Your task to perform on an android device: Set the phone to "Do not disturb". Image 0: 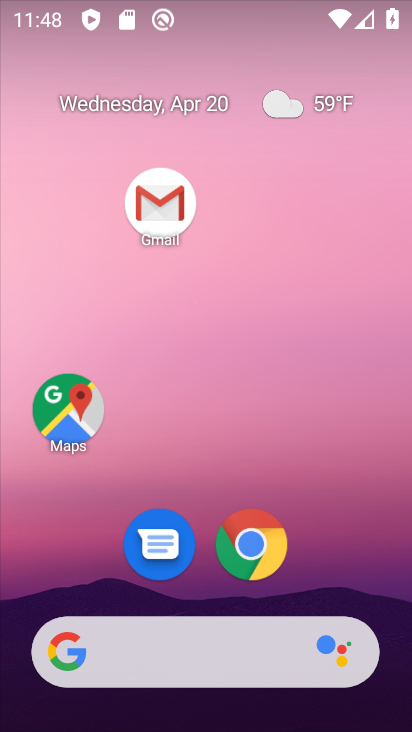
Step 0: drag from (308, 593) to (366, 93)
Your task to perform on an android device: Set the phone to "Do not disturb". Image 1: 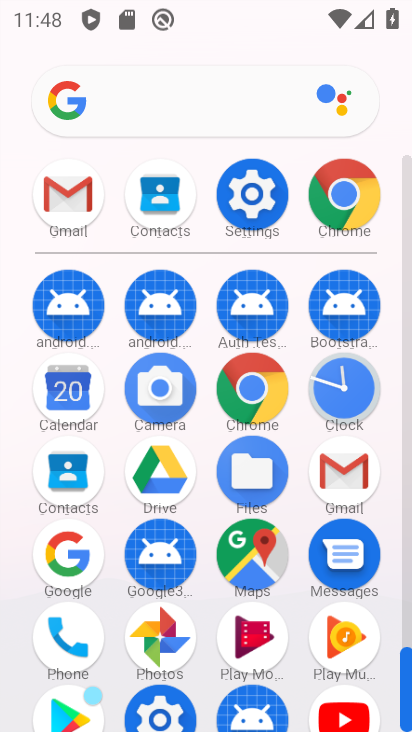
Step 1: click (266, 180)
Your task to perform on an android device: Set the phone to "Do not disturb". Image 2: 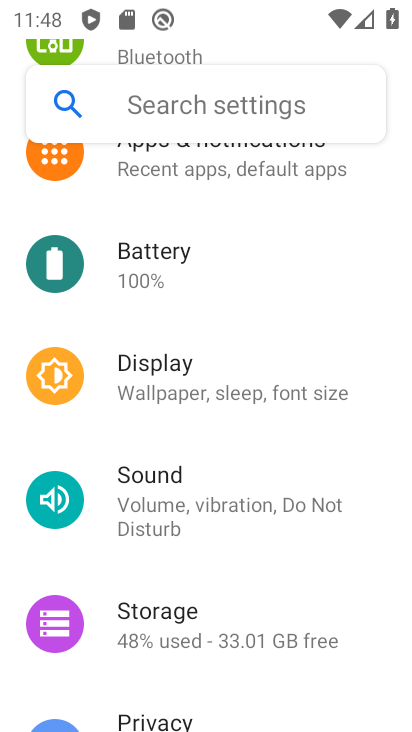
Step 2: click (207, 496)
Your task to perform on an android device: Set the phone to "Do not disturb". Image 3: 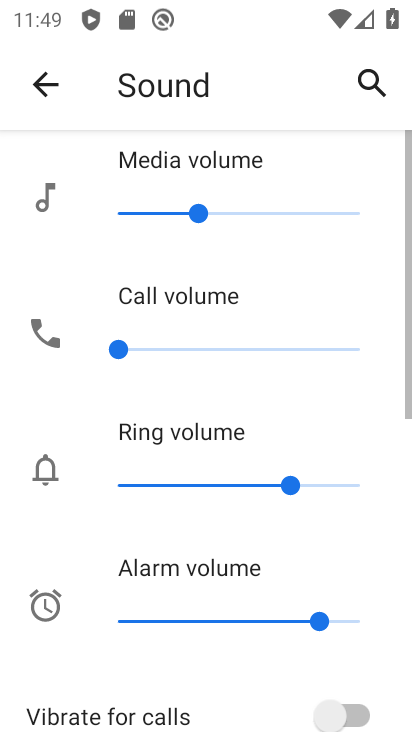
Step 3: drag from (219, 461) to (278, 113)
Your task to perform on an android device: Set the phone to "Do not disturb". Image 4: 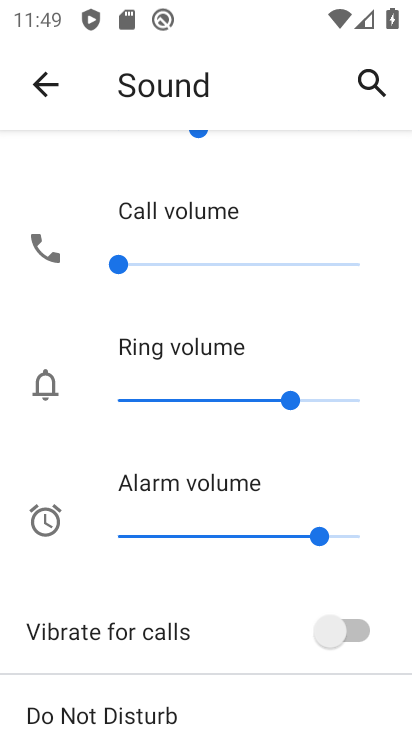
Step 4: drag from (141, 604) to (221, 192)
Your task to perform on an android device: Set the phone to "Do not disturb". Image 5: 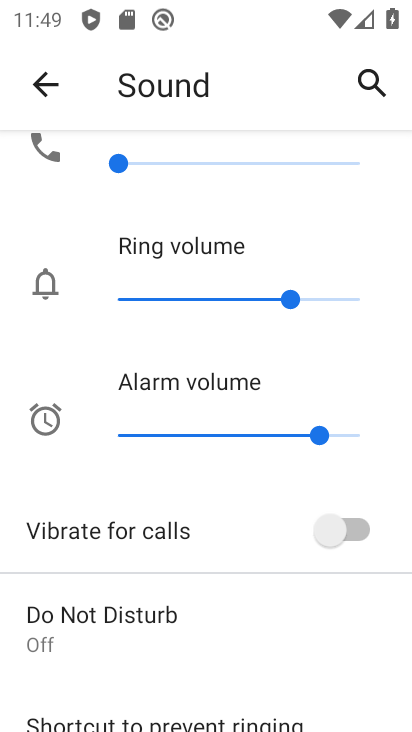
Step 5: drag from (185, 630) to (298, 199)
Your task to perform on an android device: Set the phone to "Do not disturb". Image 6: 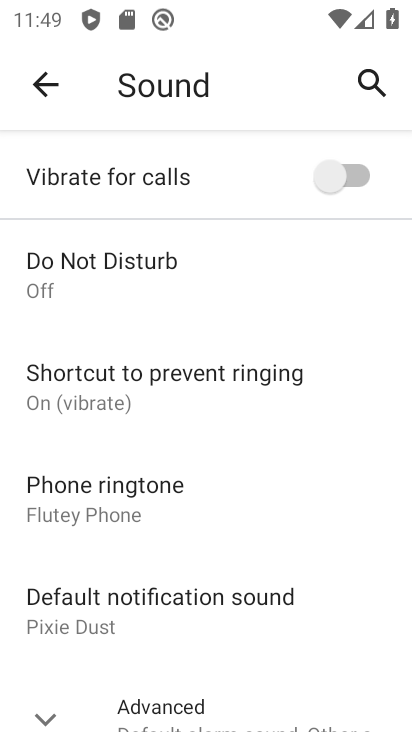
Step 6: drag from (218, 550) to (335, 110)
Your task to perform on an android device: Set the phone to "Do not disturb". Image 7: 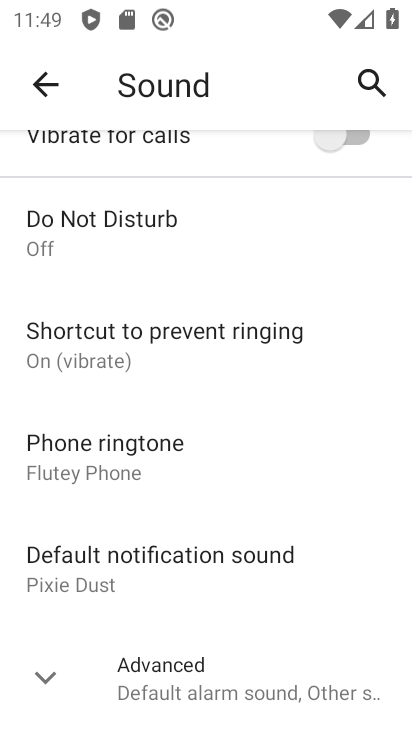
Step 7: click (118, 729)
Your task to perform on an android device: Set the phone to "Do not disturb". Image 8: 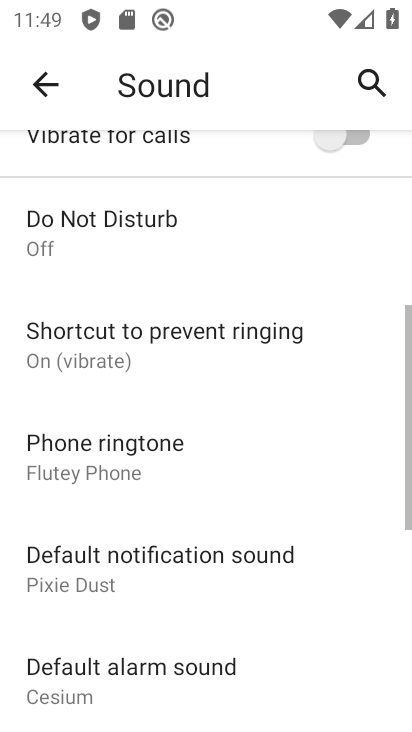
Step 8: drag from (174, 674) to (308, 158)
Your task to perform on an android device: Set the phone to "Do not disturb". Image 9: 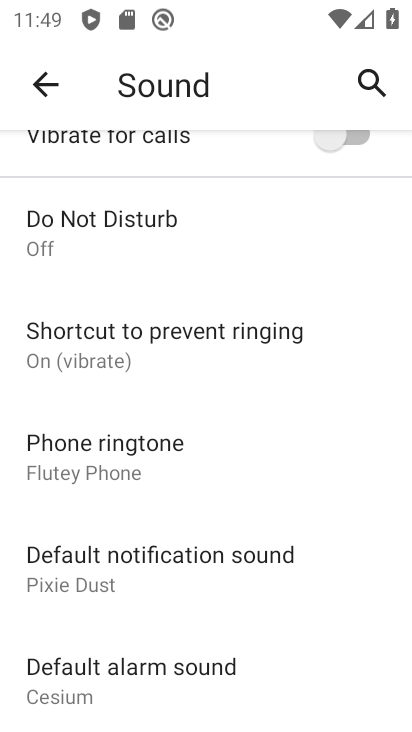
Step 9: drag from (333, 595) to (349, 290)
Your task to perform on an android device: Set the phone to "Do not disturb". Image 10: 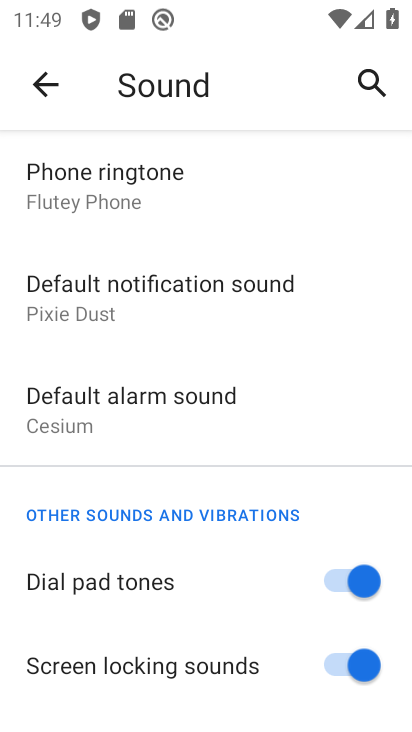
Step 10: drag from (227, 217) to (145, 615)
Your task to perform on an android device: Set the phone to "Do not disturb". Image 11: 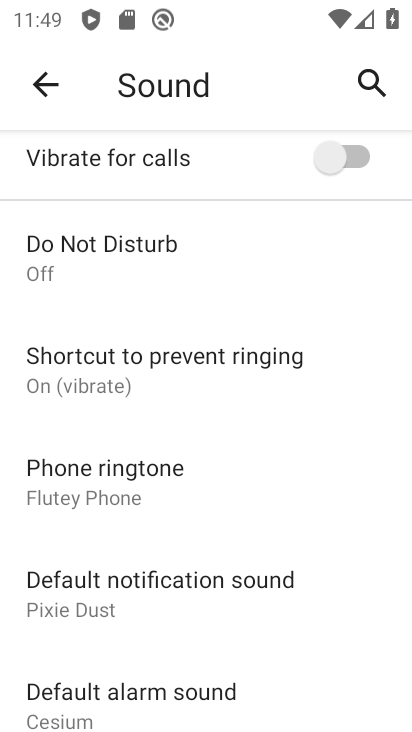
Step 11: click (100, 267)
Your task to perform on an android device: Set the phone to "Do not disturb". Image 12: 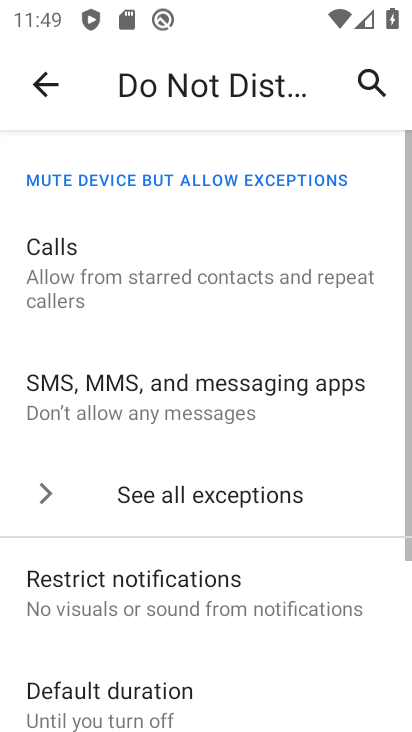
Step 12: drag from (117, 651) to (241, 164)
Your task to perform on an android device: Set the phone to "Do not disturb". Image 13: 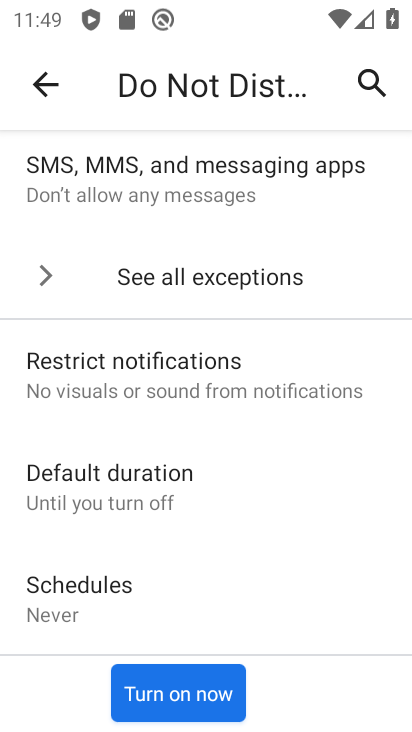
Step 13: click (142, 699)
Your task to perform on an android device: Set the phone to "Do not disturb". Image 14: 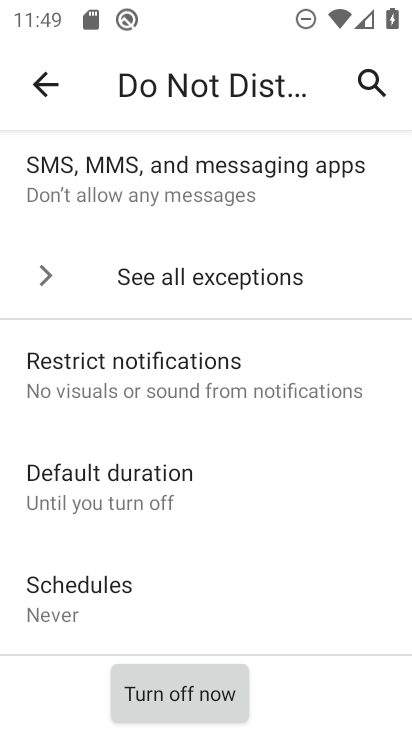
Step 14: task complete